Your task to perform on an android device: visit the assistant section in the google photos Image 0: 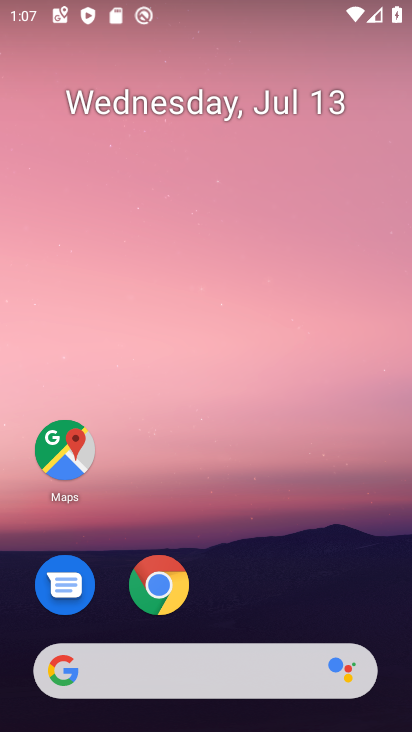
Step 0: drag from (212, 655) to (389, 126)
Your task to perform on an android device: visit the assistant section in the google photos Image 1: 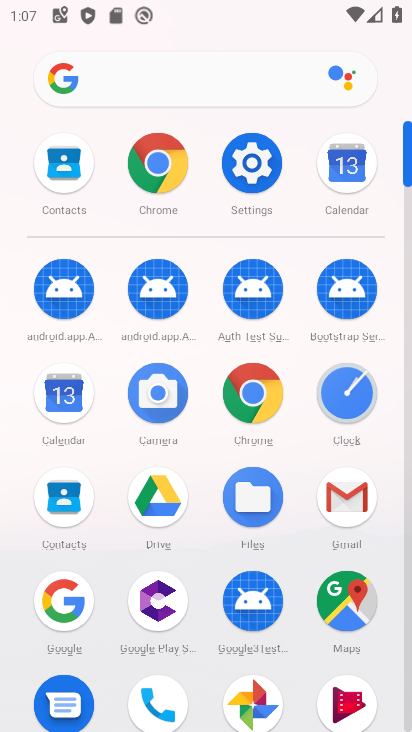
Step 1: click (251, 701)
Your task to perform on an android device: visit the assistant section in the google photos Image 2: 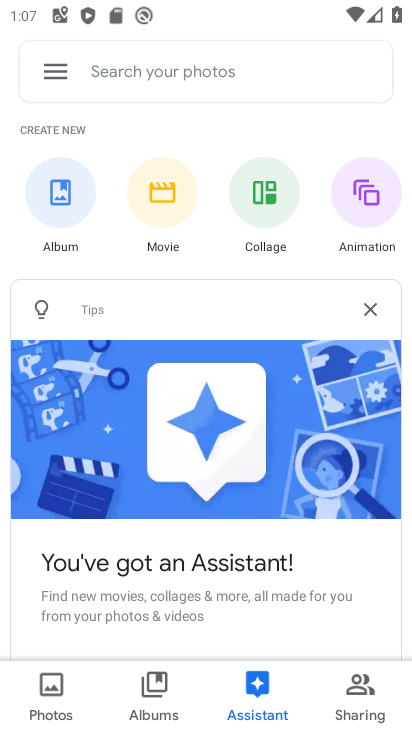
Step 2: task complete